Your task to perform on an android device: Toggle the flashlight Image 0: 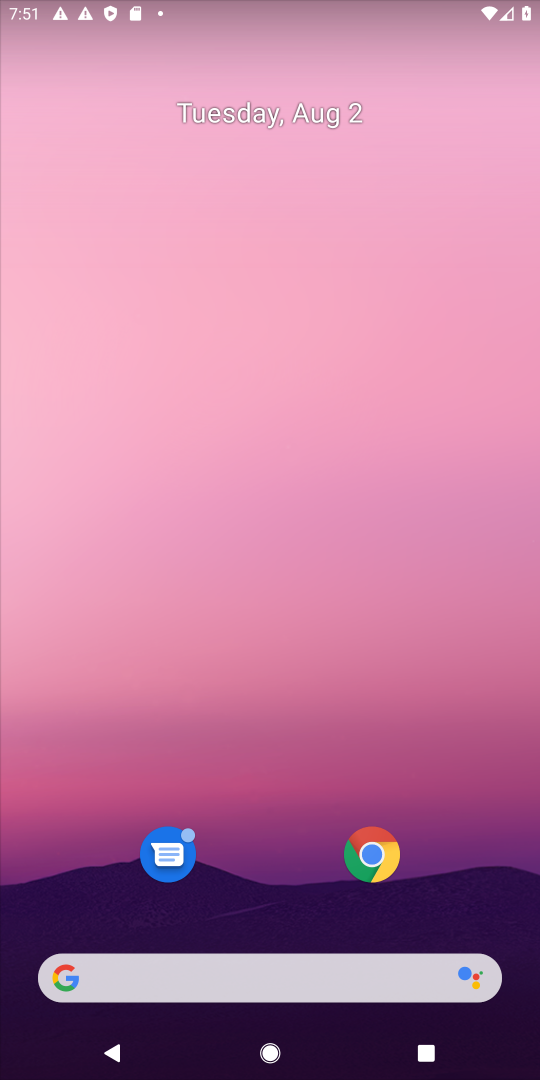
Step 0: press home button
Your task to perform on an android device: Toggle the flashlight Image 1: 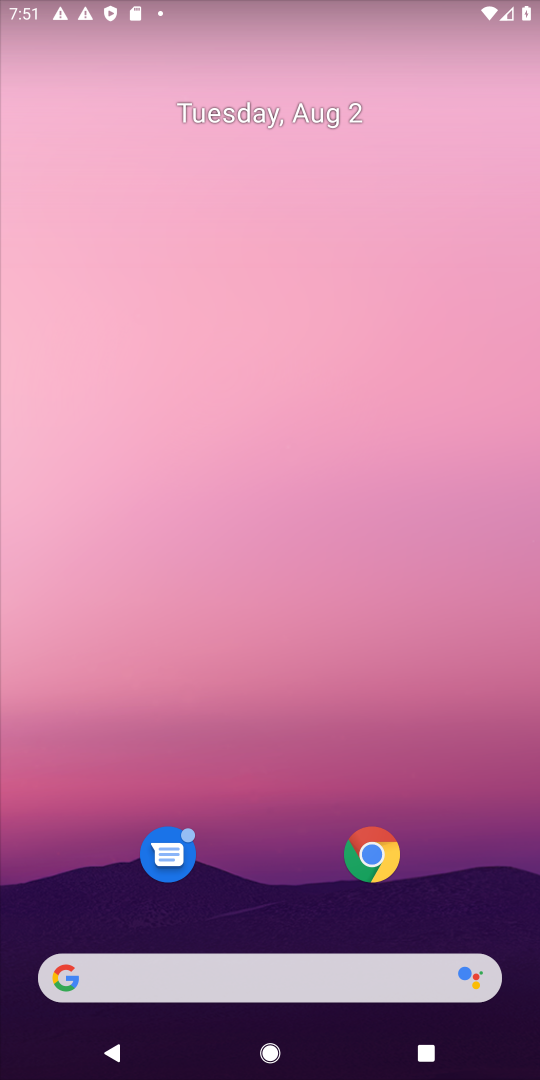
Step 1: drag from (285, 194) to (305, 708)
Your task to perform on an android device: Toggle the flashlight Image 2: 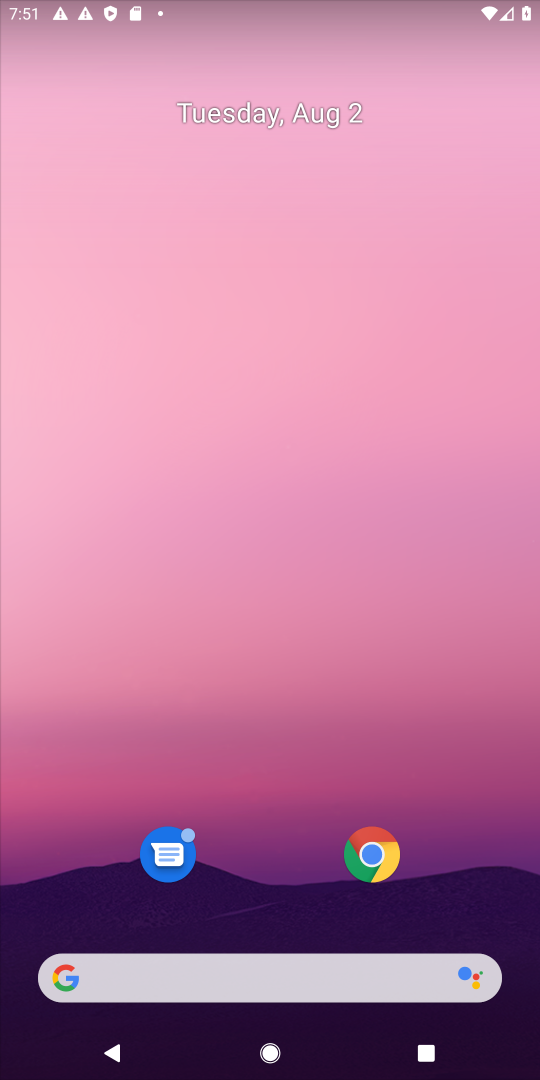
Step 2: drag from (285, 148) to (290, 783)
Your task to perform on an android device: Toggle the flashlight Image 3: 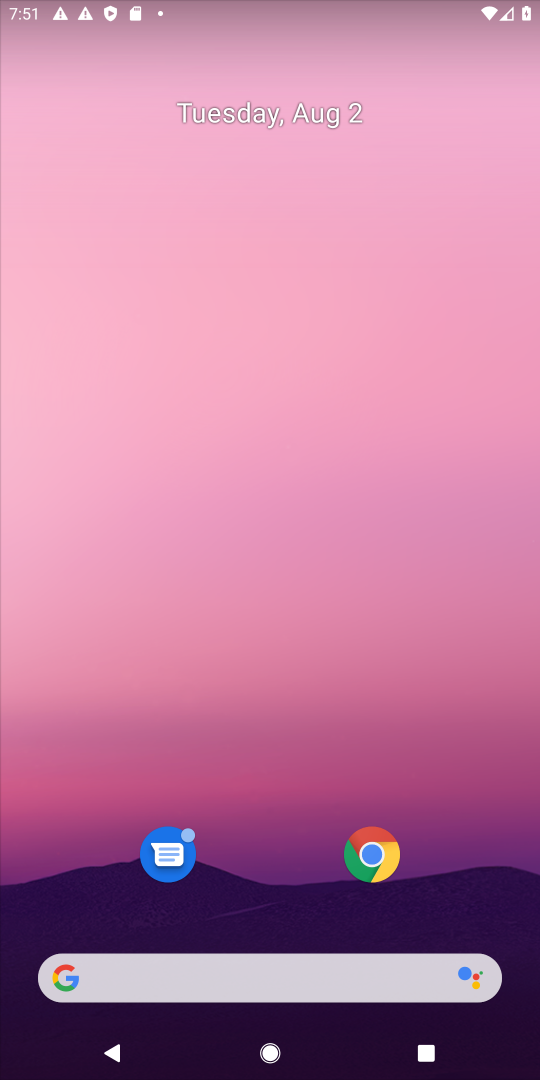
Step 3: drag from (285, 0) to (300, 839)
Your task to perform on an android device: Toggle the flashlight Image 4: 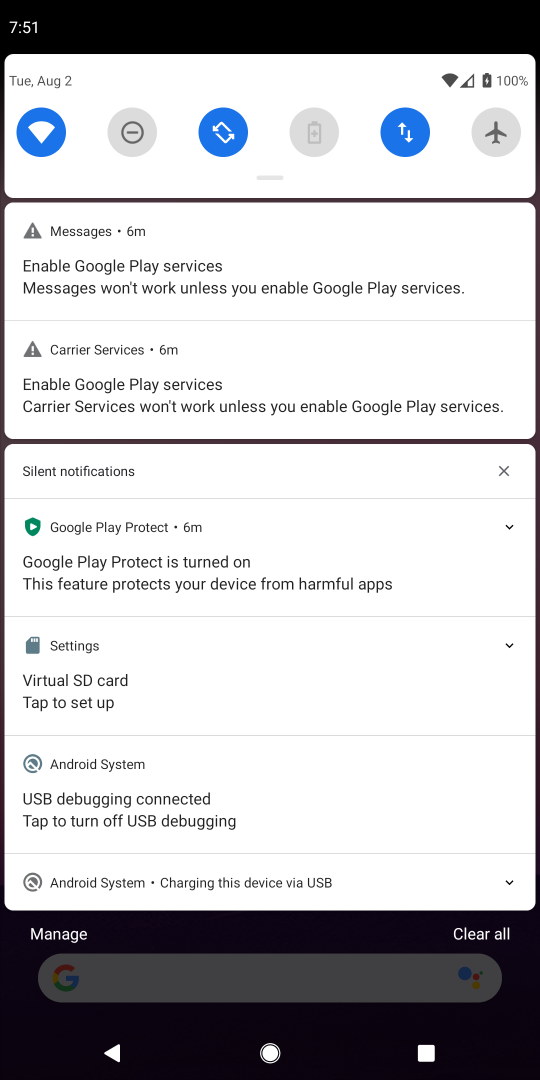
Step 4: click (279, 715)
Your task to perform on an android device: Toggle the flashlight Image 5: 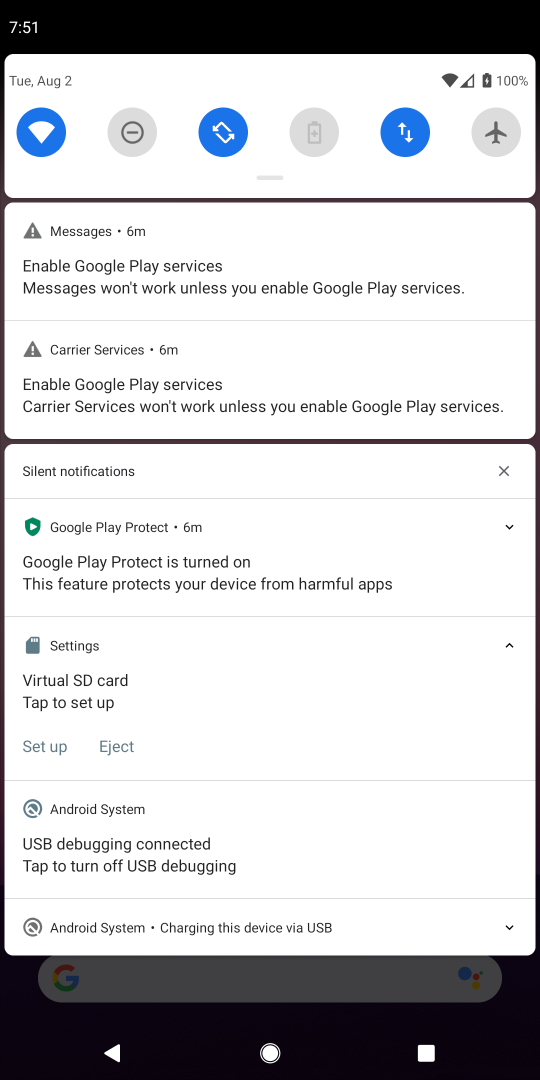
Step 5: task complete